Your task to perform on an android device: create a new album in the google photos Image 0: 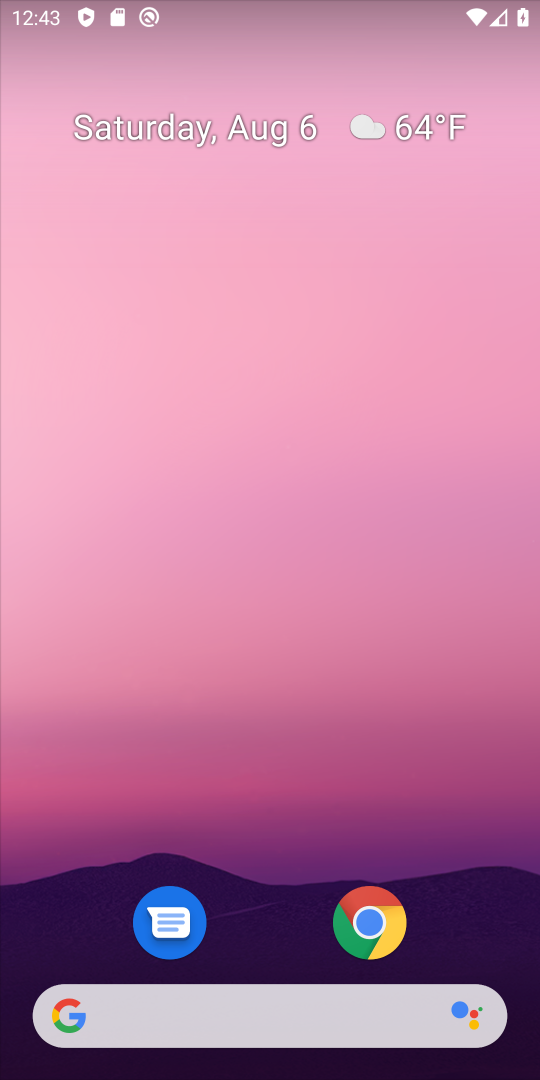
Step 0: drag from (276, 744) to (316, 93)
Your task to perform on an android device: create a new album in the google photos Image 1: 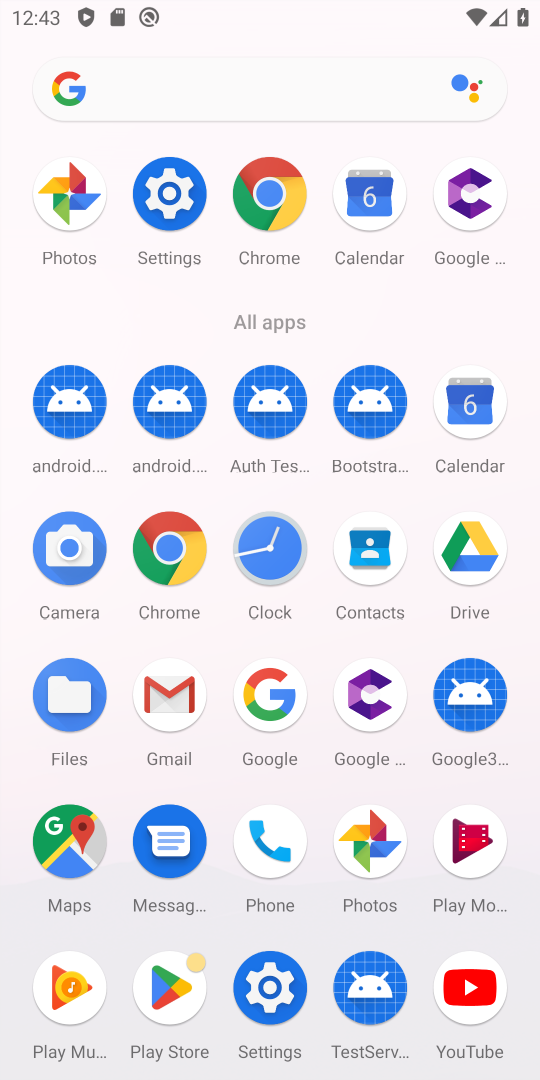
Step 1: click (357, 846)
Your task to perform on an android device: create a new album in the google photos Image 2: 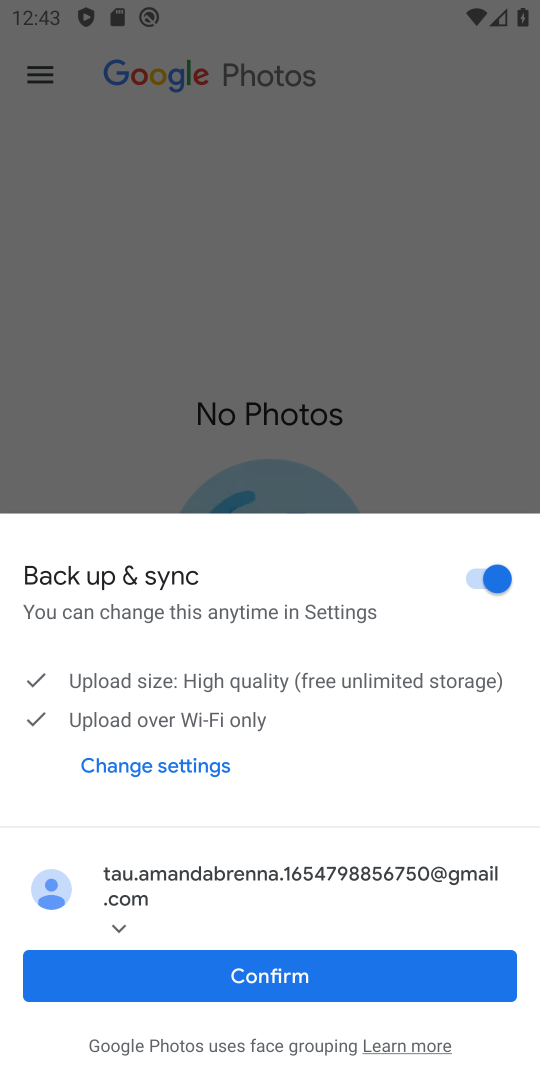
Step 2: click (278, 960)
Your task to perform on an android device: create a new album in the google photos Image 3: 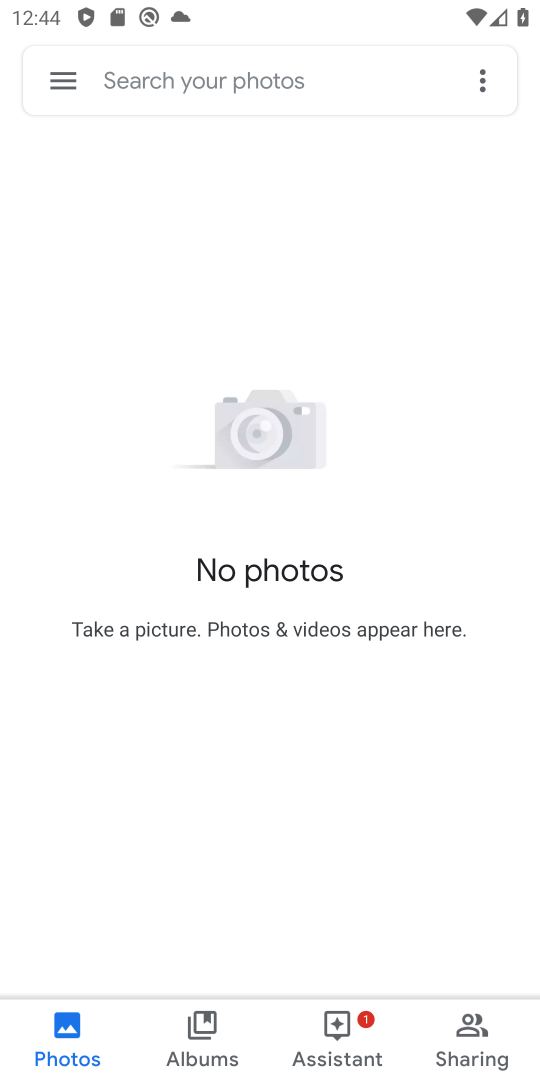
Step 3: click (191, 1033)
Your task to perform on an android device: create a new album in the google photos Image 4: 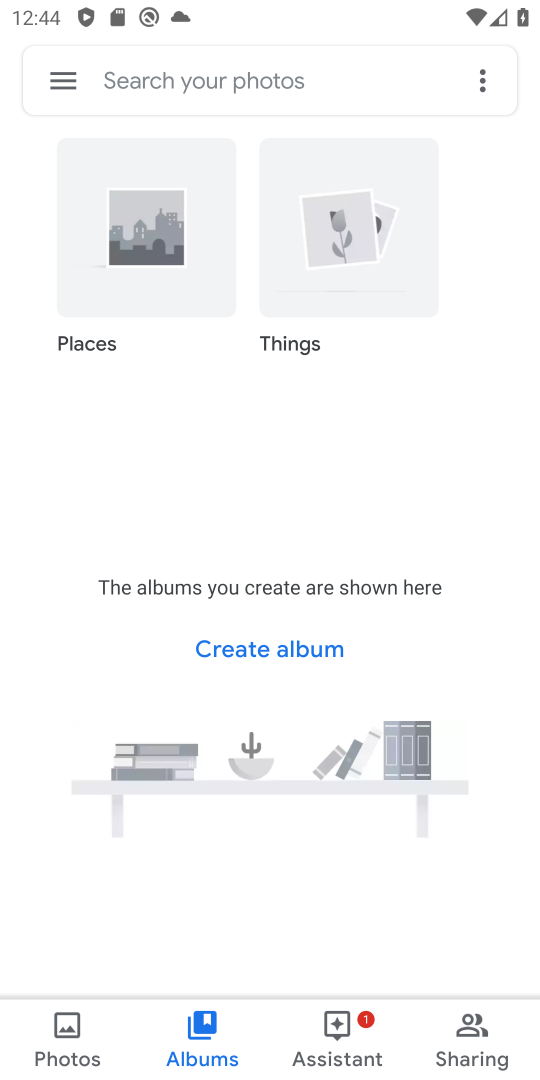
Step 4: click (195, 1023)
Your task to perform on an android device: create a new album in the google photos Image 5: 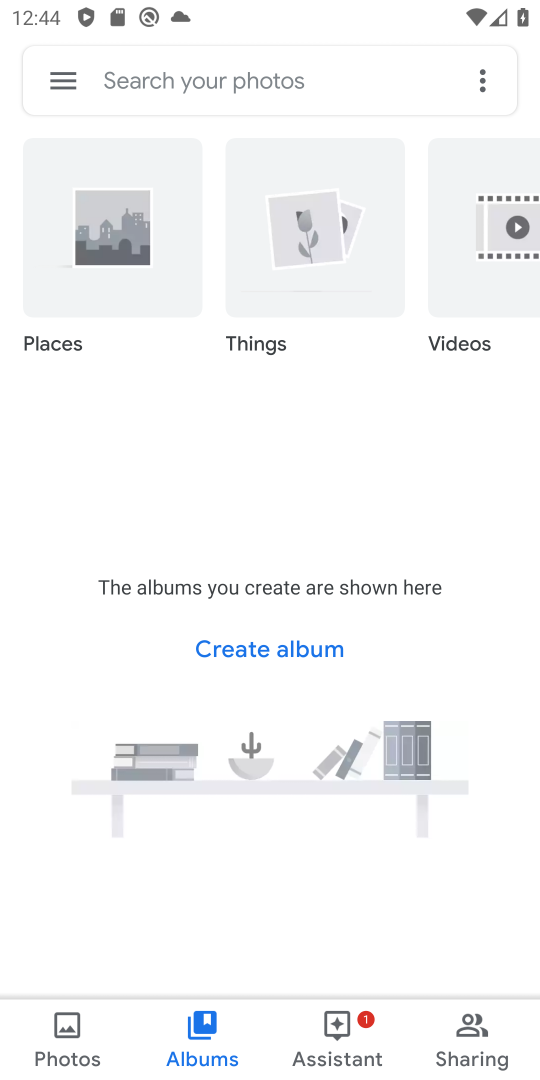
Step 5: click (276, 615)
Your task to perform on an android device: create a new album in the google photos Image 6: 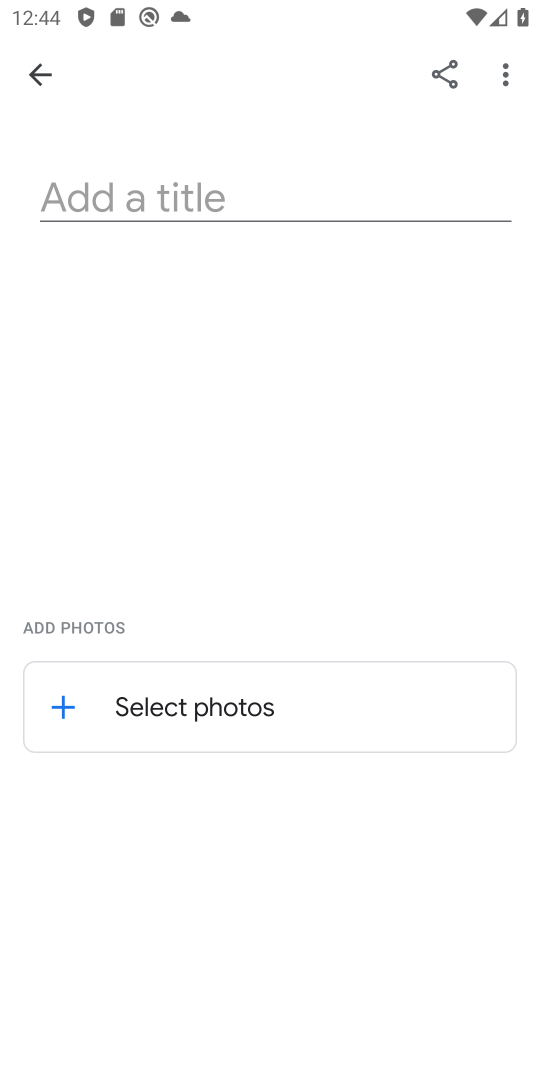
Step 6: task complete